Your task to perform on an android device: turn on wifi Image 0: 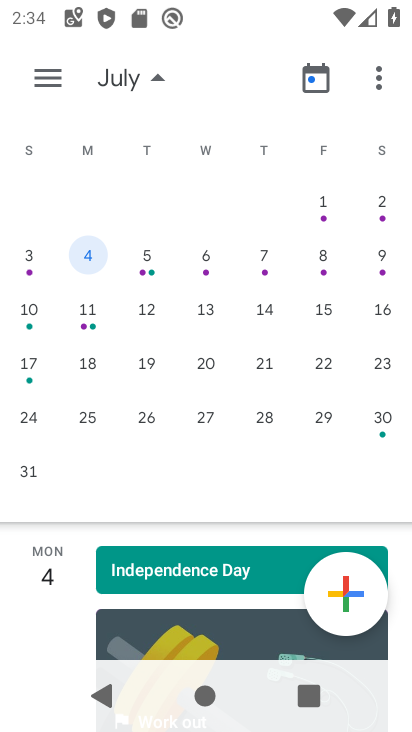
Step 0: press home button
Your task to perform on an android device: turn on wifi Image 1: 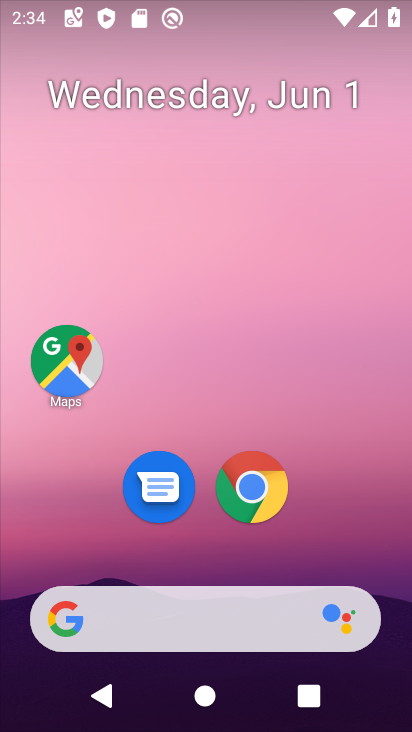
Step 1: drag from (388, 542) to (394, 116)
Your task to perform on an android device: turn on wifi Image 2: 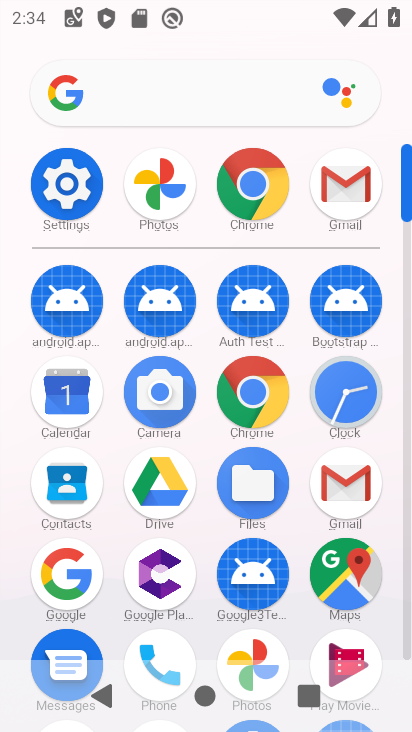
Step 2: click (79, 207)
Your task to perform on an android device: turn on wifi Image 3: 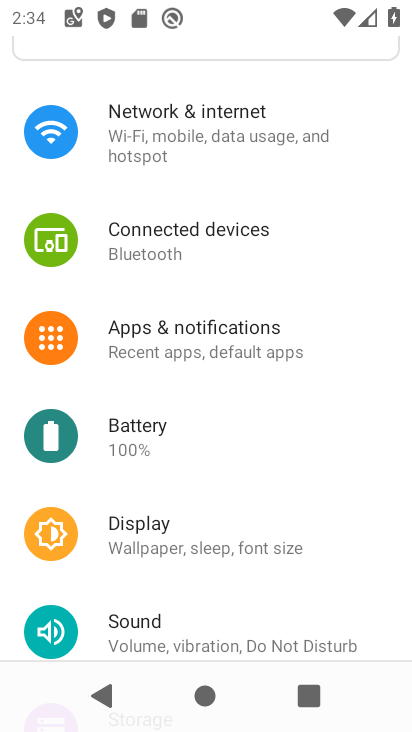
Step 3: drag from (354, 238) to (354, 358)
Your task to perform on an android device: turn on wifi Image 4: 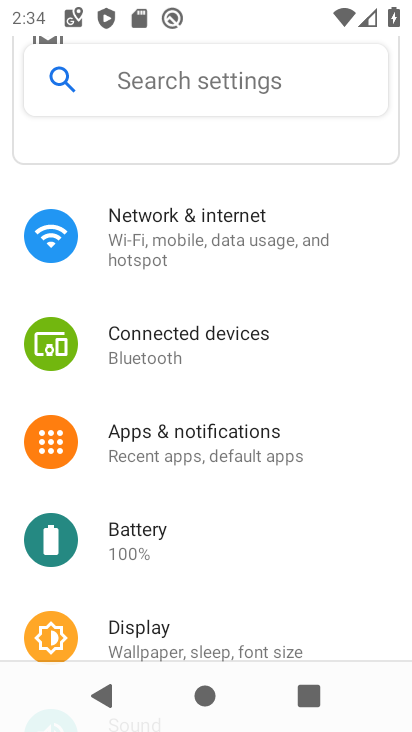
Step 4: drag from (361, 228) to (371, 415)
Your task to perform on an android device: turn on wifi Image 5: 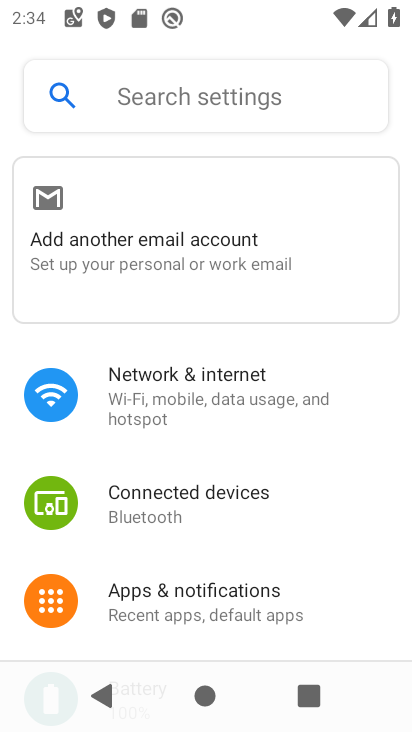
Step 5: drag from (336, 207) to (347, 392)
Your task to perform on an android device: turn on wifi Image 6: 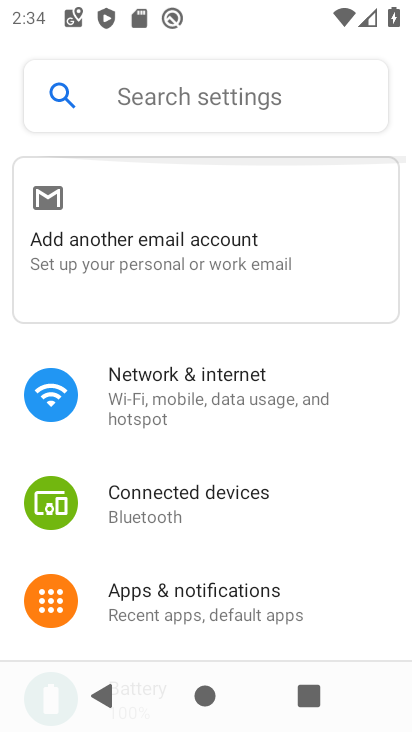
Step 6: drag from (344, 441) to (341, 322)
Your task to perform on an android device: turn on wifi Image 7: 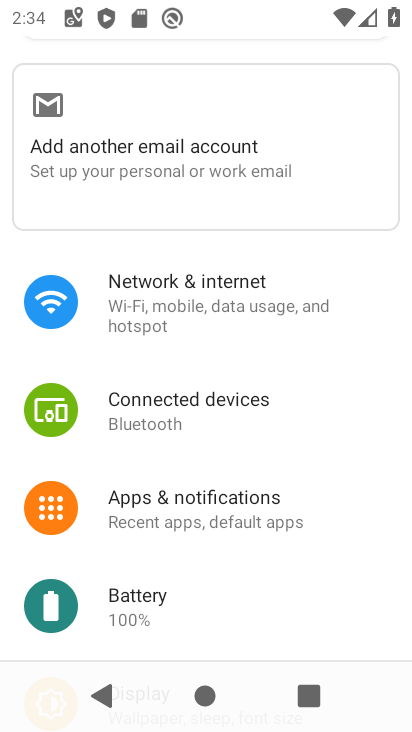
Step 7: click (257, 307)
Your task to perform on an android device: turn on wifi Image 8: 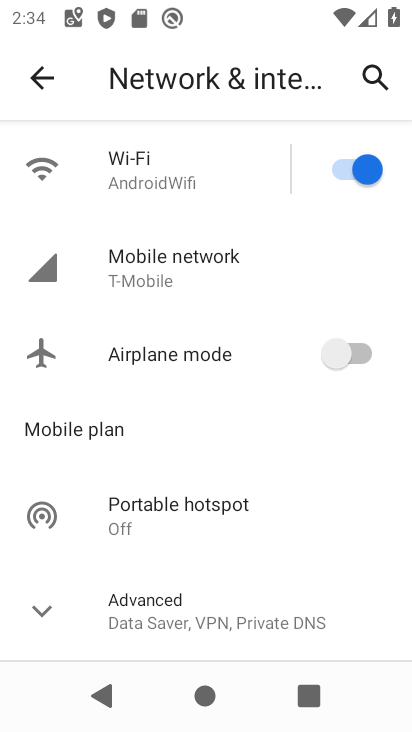
Step 8: task complete